Your task to perform on an android device: add a label to a message in the gmail app Image 0: 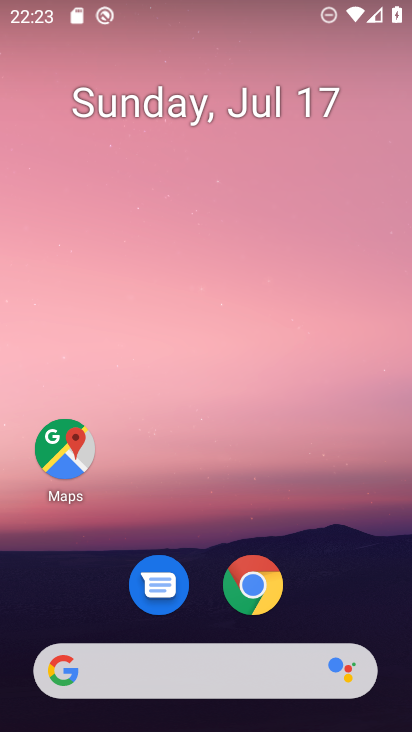
Step 0: drag from (165, 648) to (233, 9)
Your task to perform on an android device: add a label to a message in the gmail app Image 1: 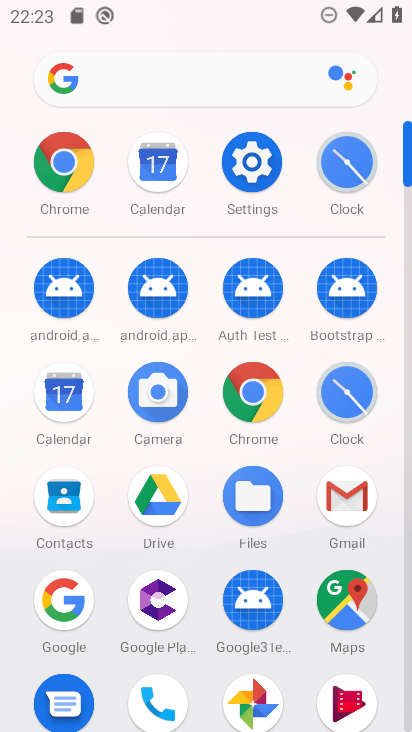
Step 1: click (350, 506)
Your task to perform on an android device: add a label to a message in the gmail app Image 2: 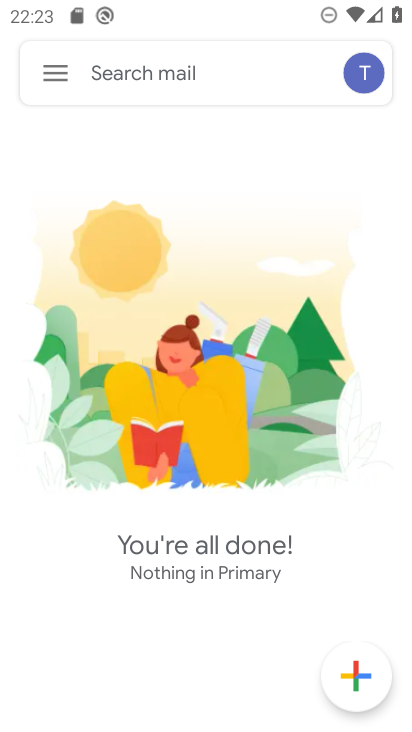
Step 2: task complete